Your task to perform on an android device: install app "PUBG MOBILE" Image 0: 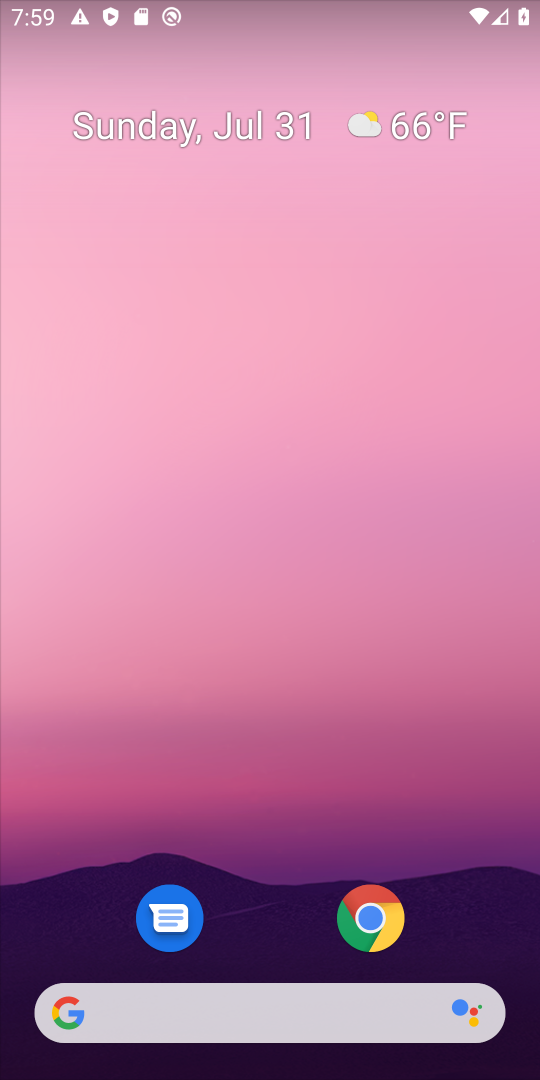
Step 0: drag from (218, 553) to (319, 71)
Your task to perform on an android device: install app "PUBG MOBILE" Image 1: 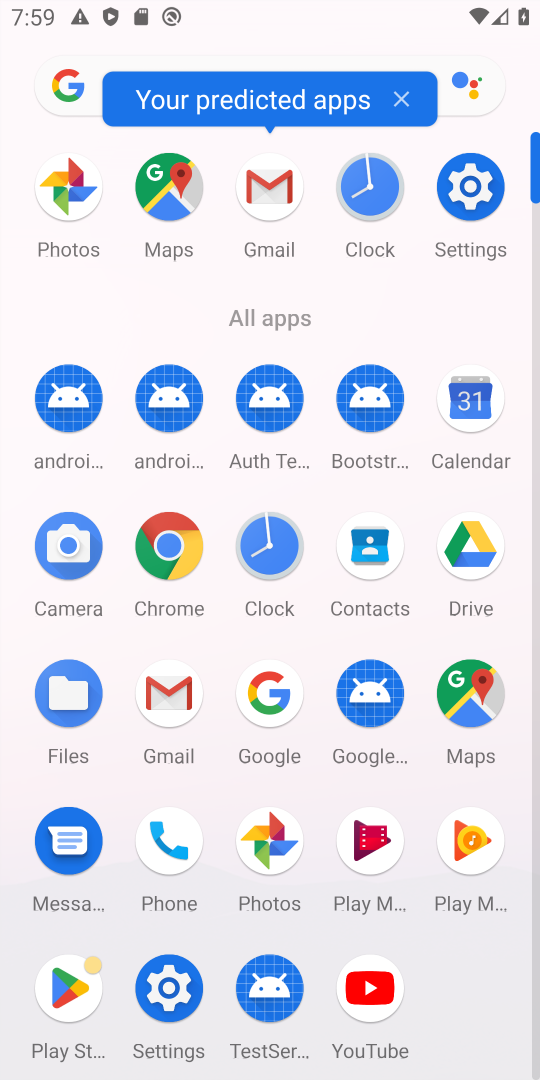
Step 1: click (65, 988)
Your task to perform on an android device: install app "PUBG MOBILE" Image 2: 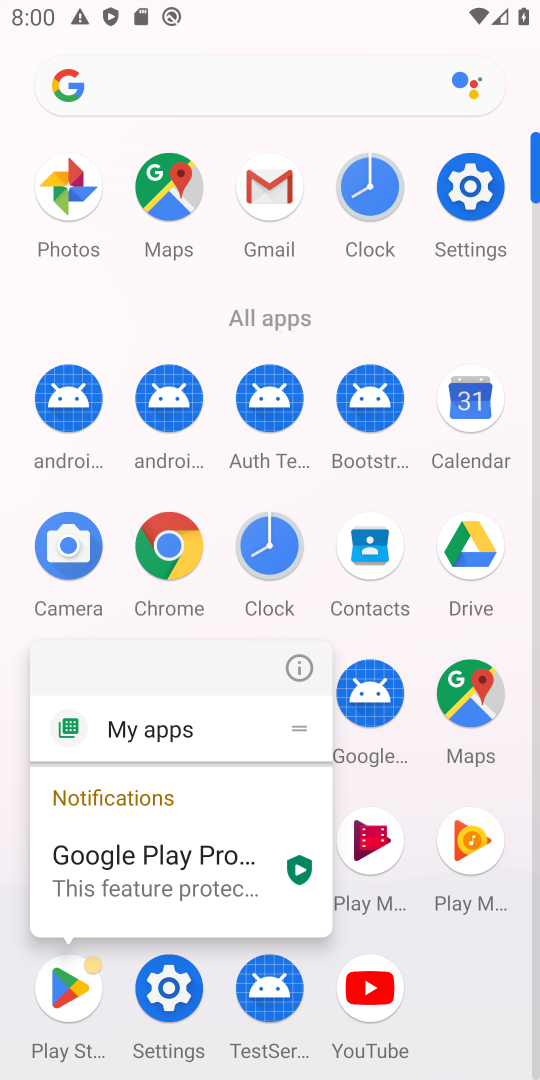
Step 2: click (65, 988)
Your task to perform on an android device: install app "PUBG MOBILE" Image 3: 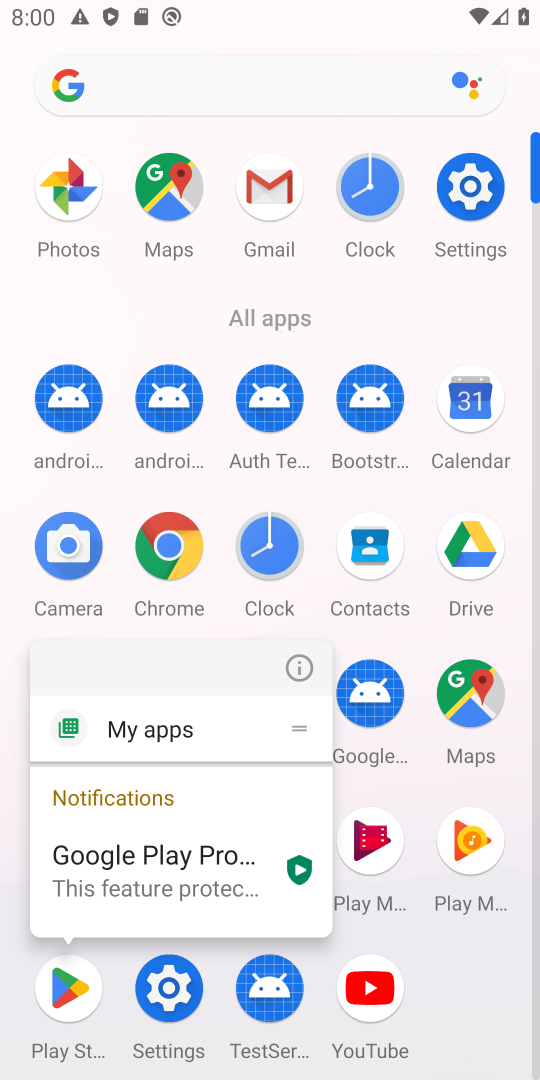
Step 3: click (69, 1006)
Your task to perform on an android device: install app "PUBG MOBILE" Image 4: 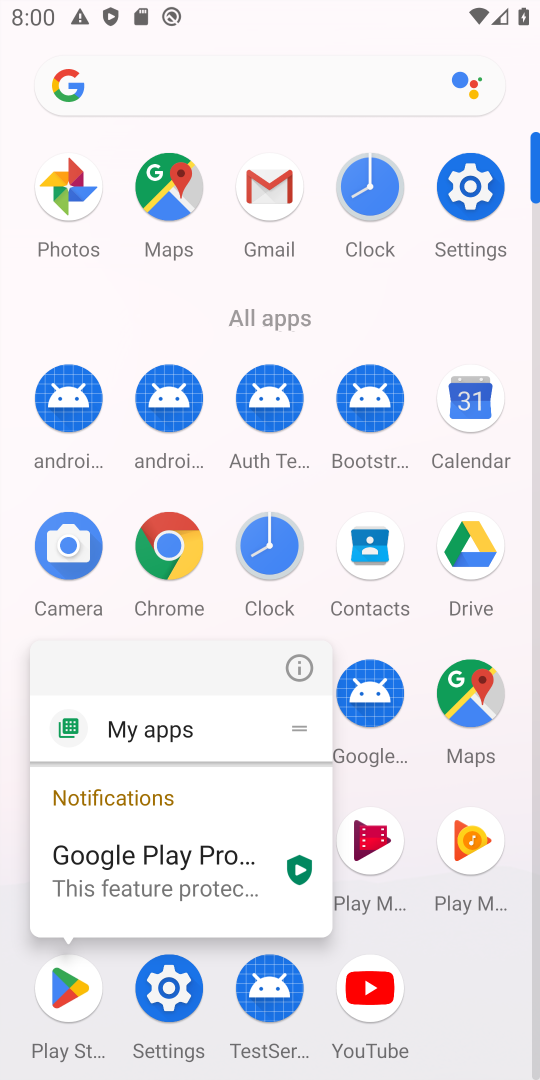
Step 4: click (69, 1006)
Your task to perform on an android device: install app "PUBG MOBILE" Image 5: 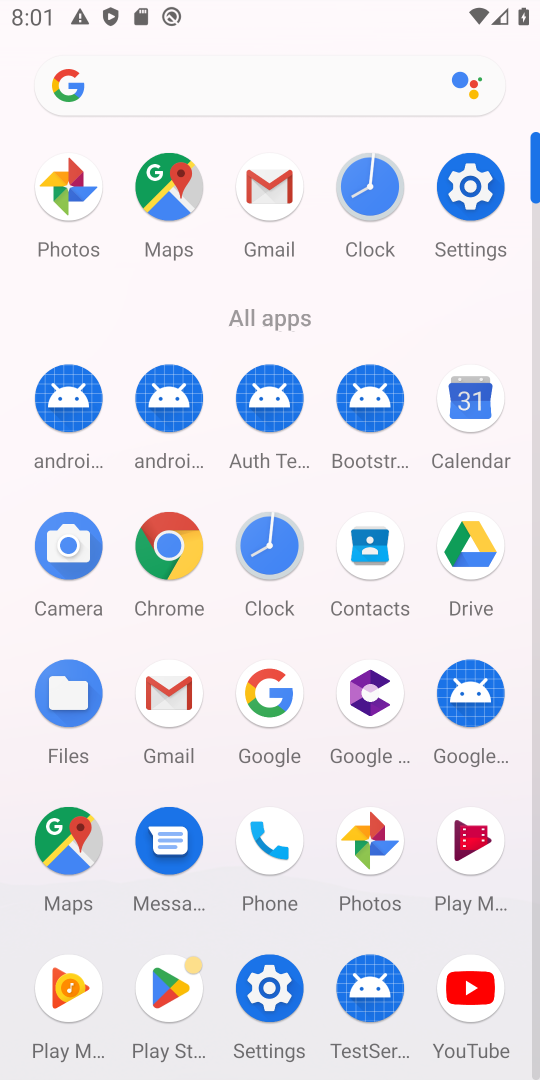
Step 5: click (151, 993)
Your task to perform on an android device: install app "PUBG MOBILE" Image 6: 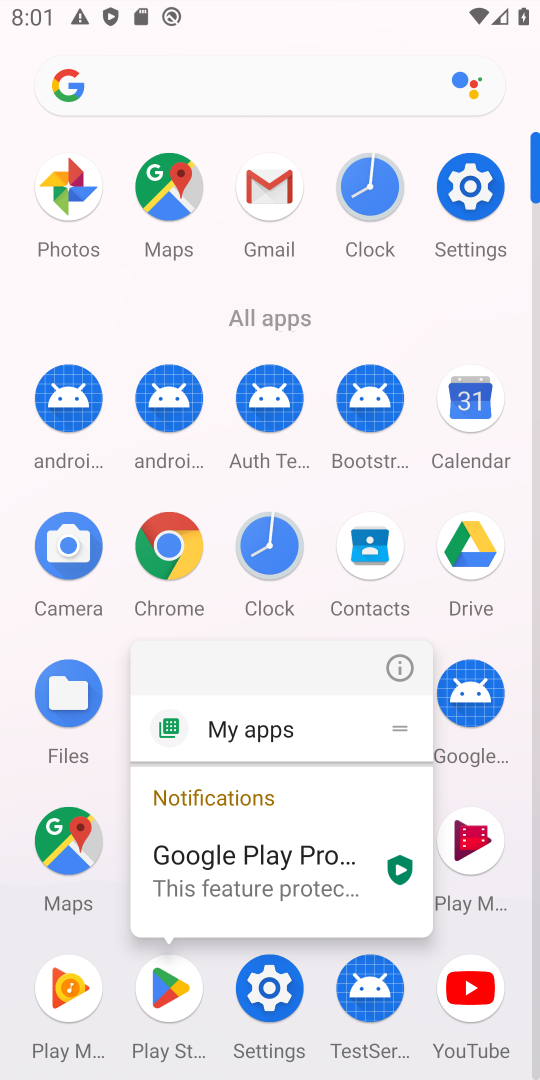
Step 6: click (57, 999)
Your task to perform on an android device: install app "PUBG MOBILE" Image 7: 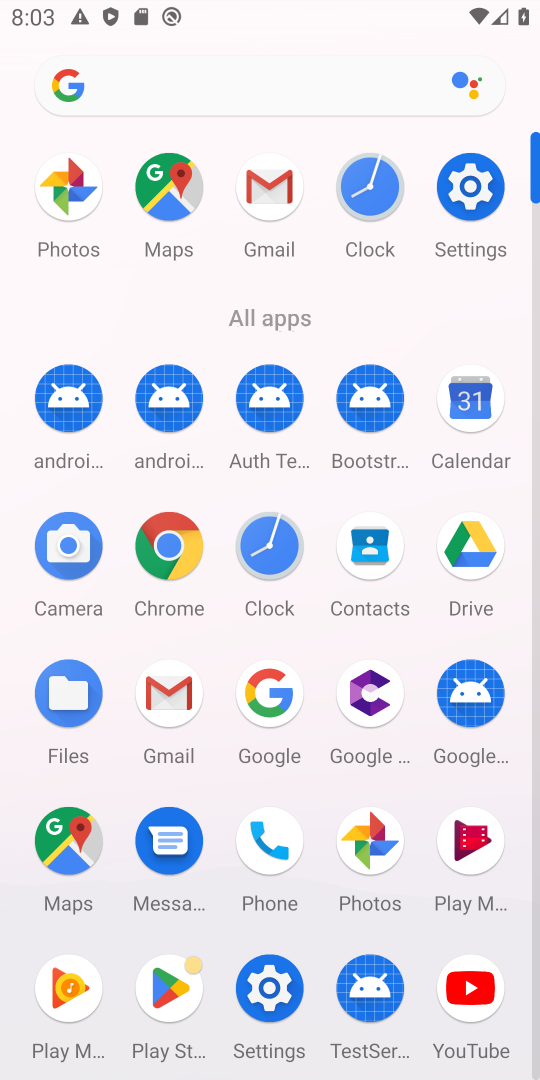
Step 7: click (167, 990)
Your task to perform on an android device: install app "PUBG MOBILE" Image 8: 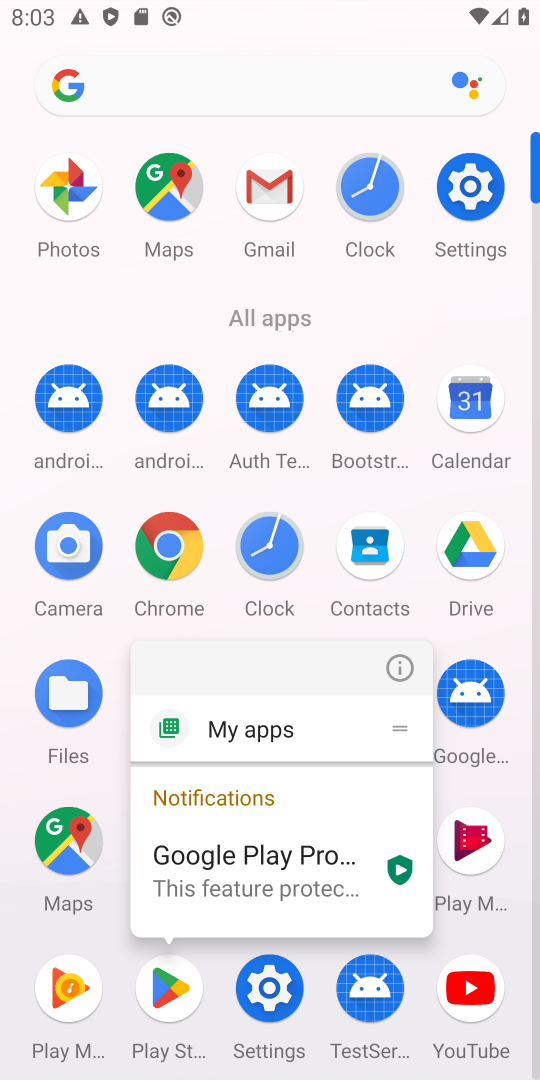
Step 8: click (167, 990)
Your task to perform on an android device: install app "PUBG MOBILE" Image 9: 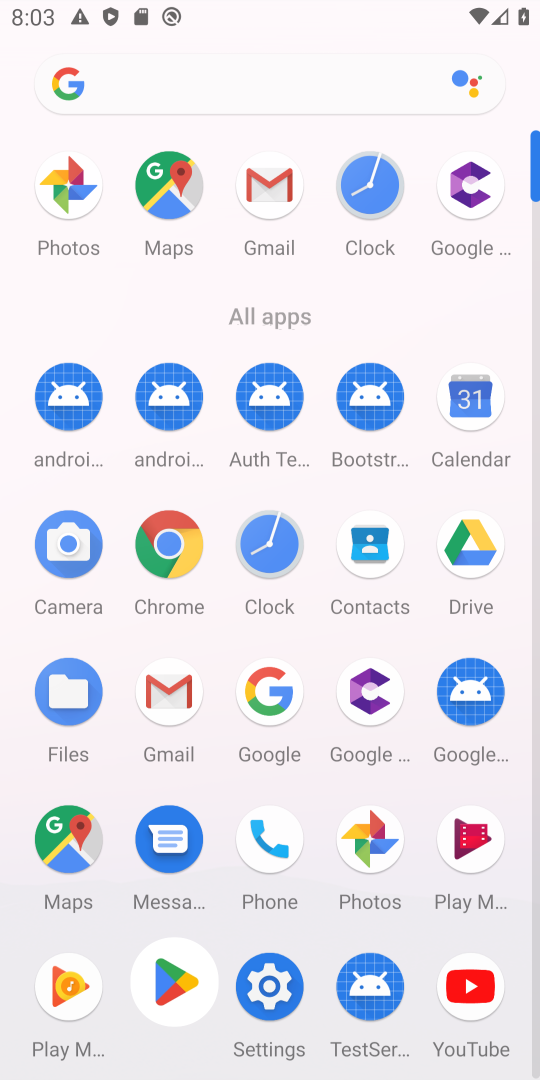
Step 9: click (167, 990)
Your task to perform on an android device: install app "PUBG MOBILE" Image 10: 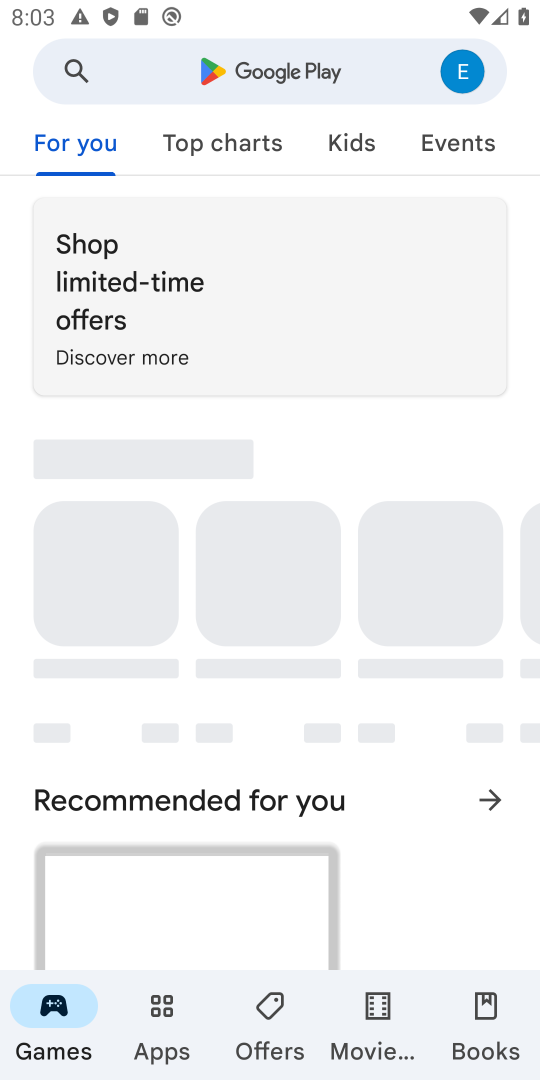
Step 10: click (150, 49)
Your task to perform on an android device: install app "PUBG MOBILE" Image 11: 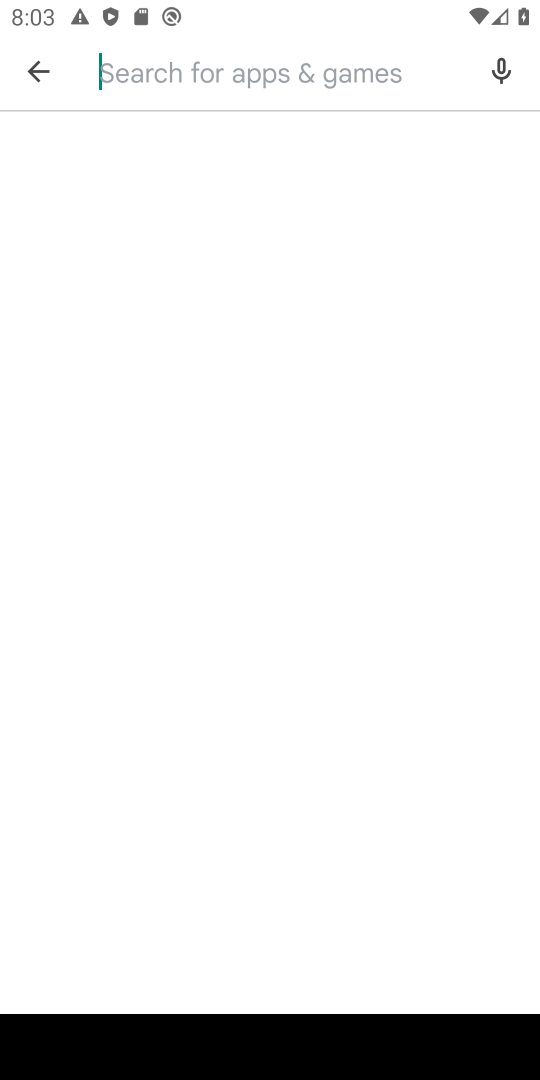
Step 11: type "PUBG MOBILE"
Your task to perform on an android device: install app "PUBG MOBILE" Image 12: 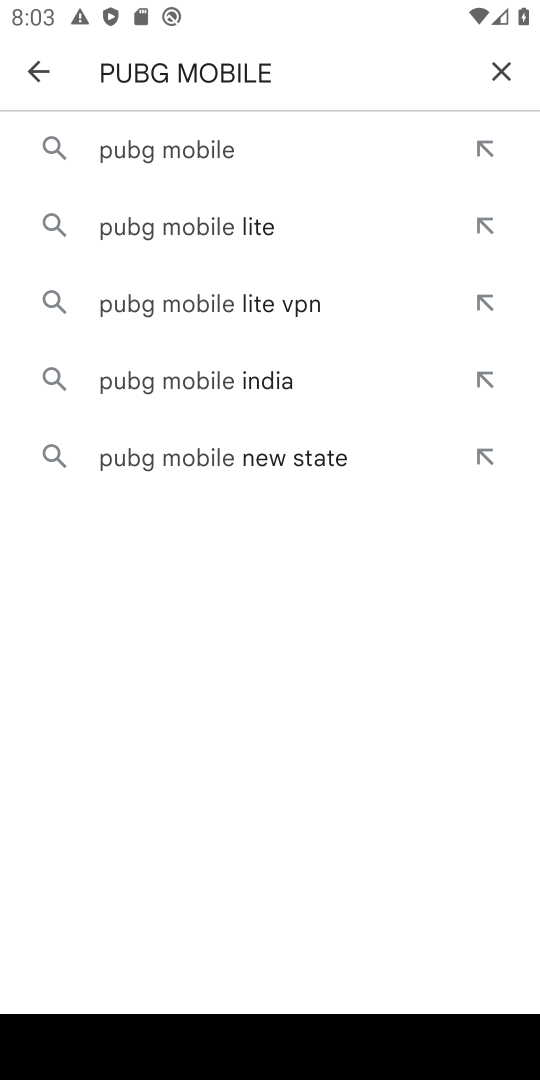
Step 12: type ""
Your task to perform on an android device: install app "PUBG MOBILE" Image 13: 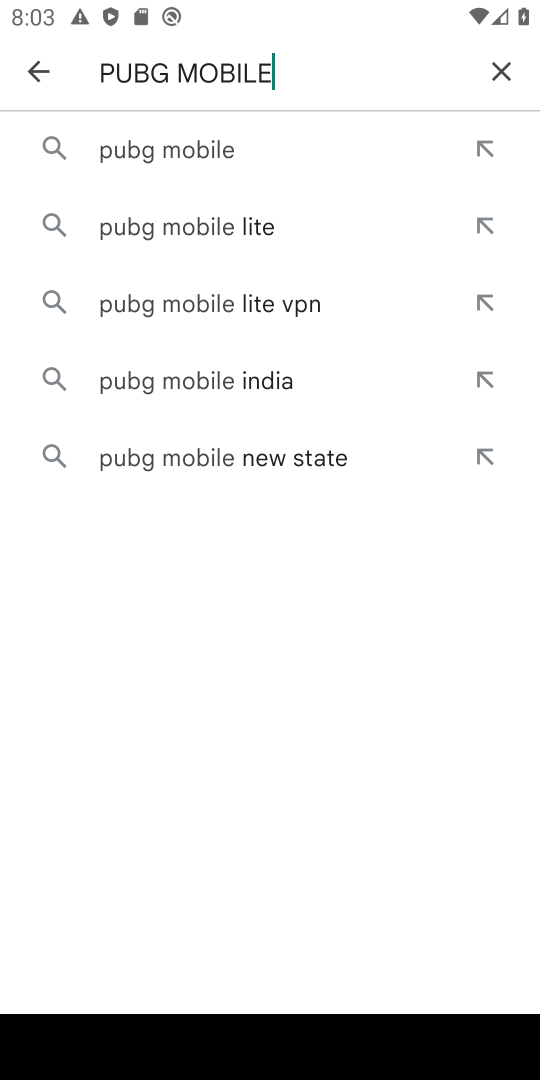
Step 13: click (294, 127)
Your task to perform on an android device: install app "PUBG MOBILE" Image 14: 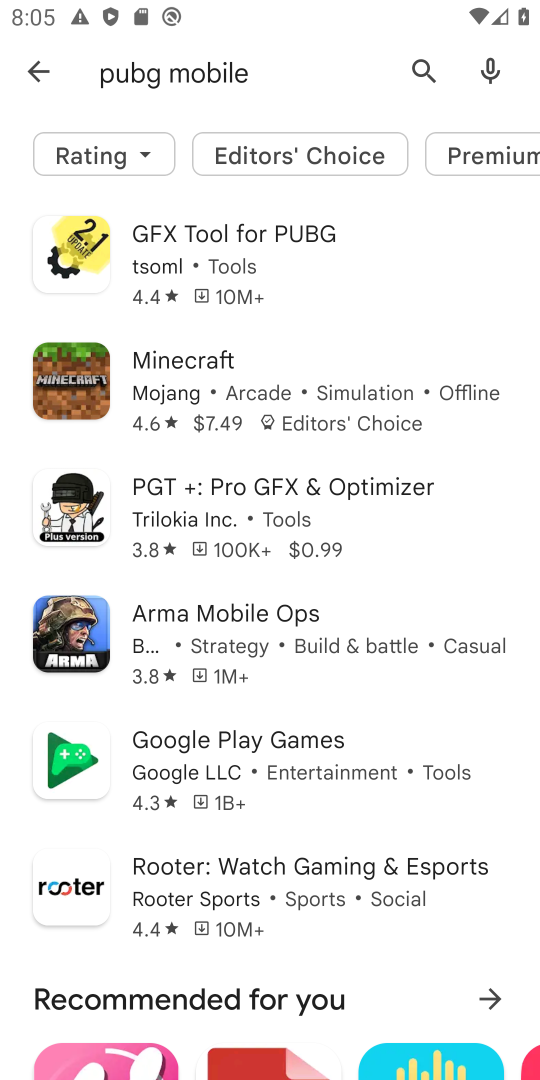
Step 14: task complete